Your task to perform on an android device: Toggle the flashlight Image 0: 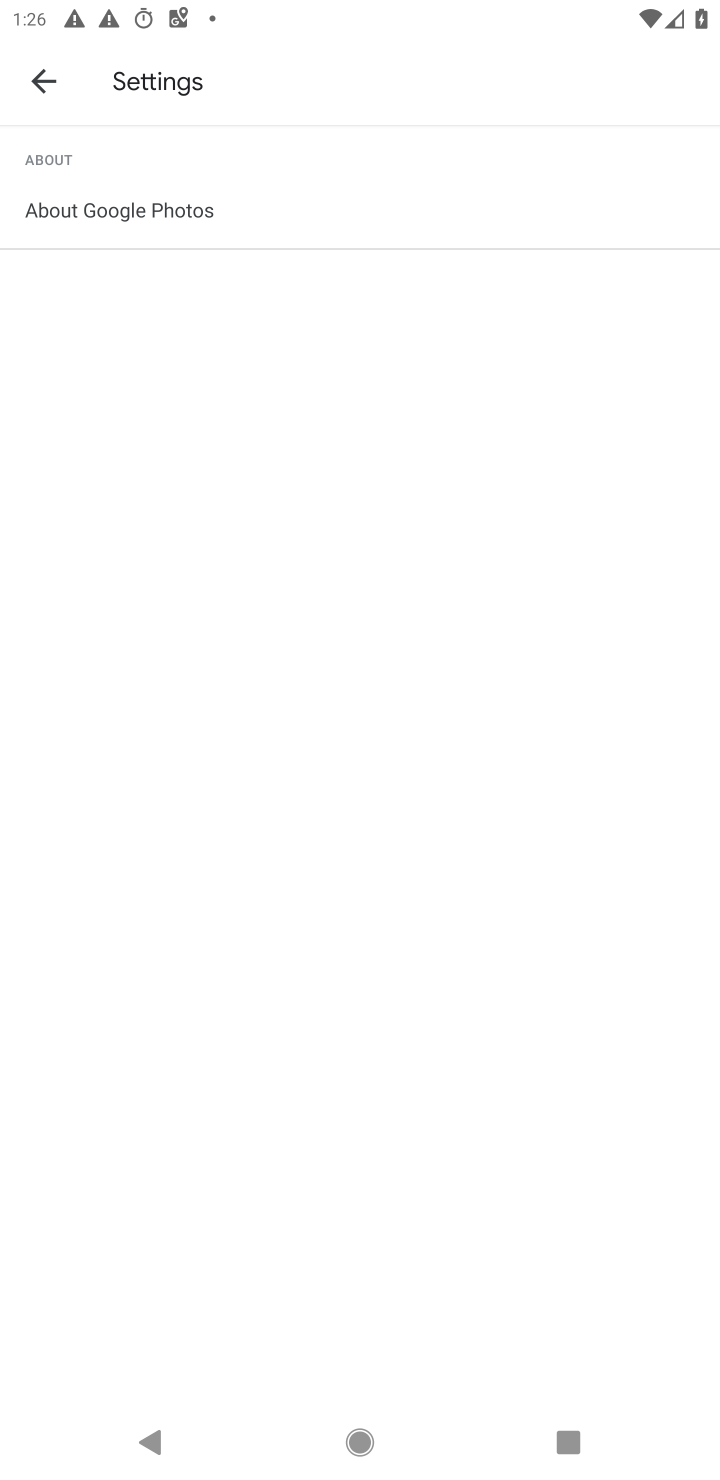
Step 0: press home button
Your task to perform on an android device: Toggle the flashlight Image 1: 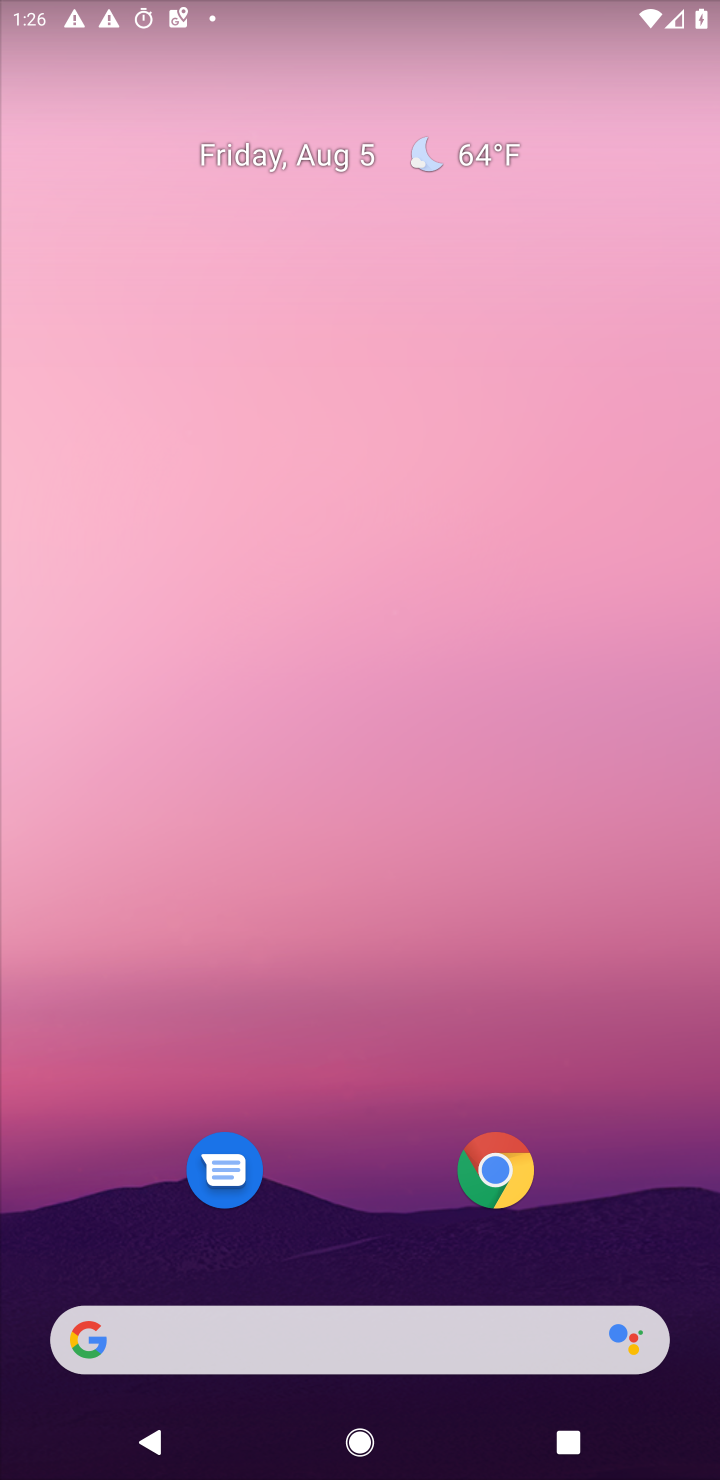
Step 1: drag from (383, 1155) to (250, 134)
Your task to perform on an android device: Toggle the flashlight Image 2: 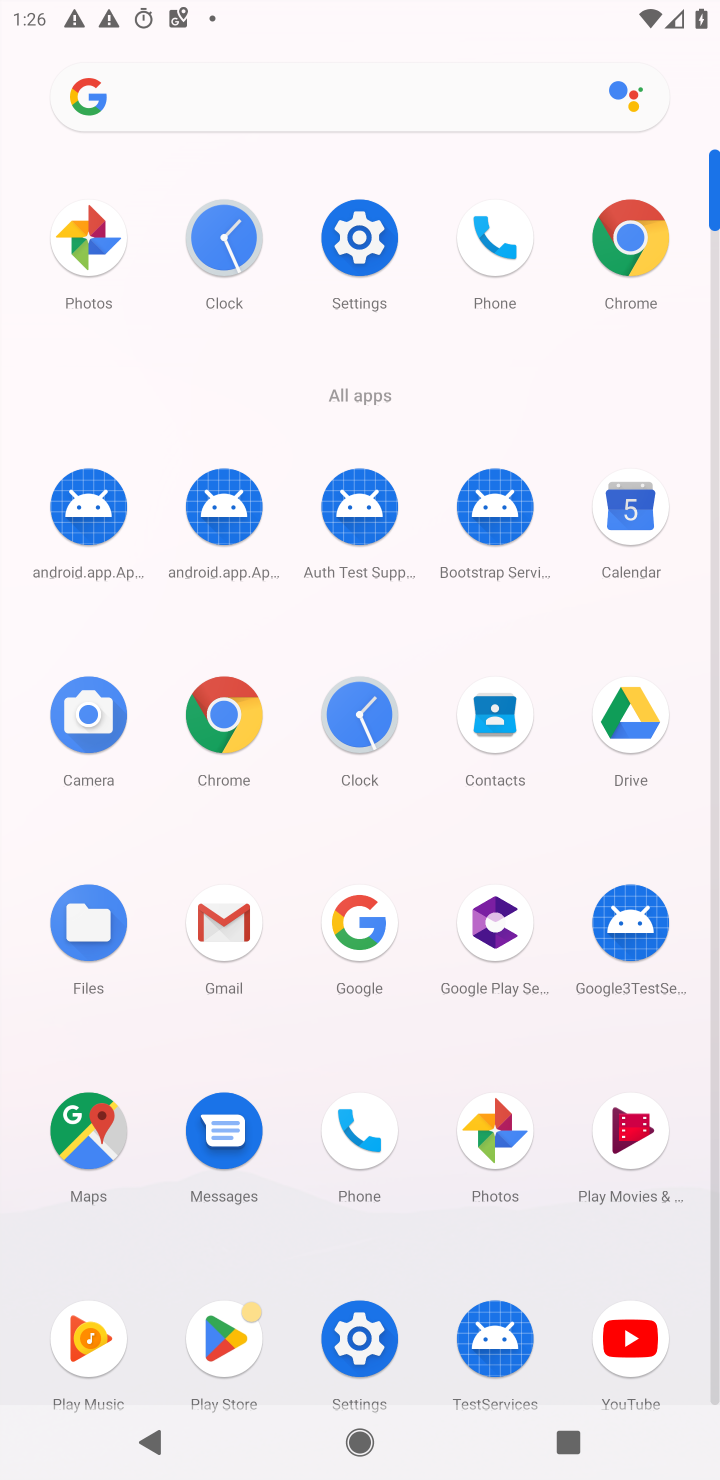
Step 2: click (363, 260)
Your task to perform on an android device: Toggle the flashlight Image 3: 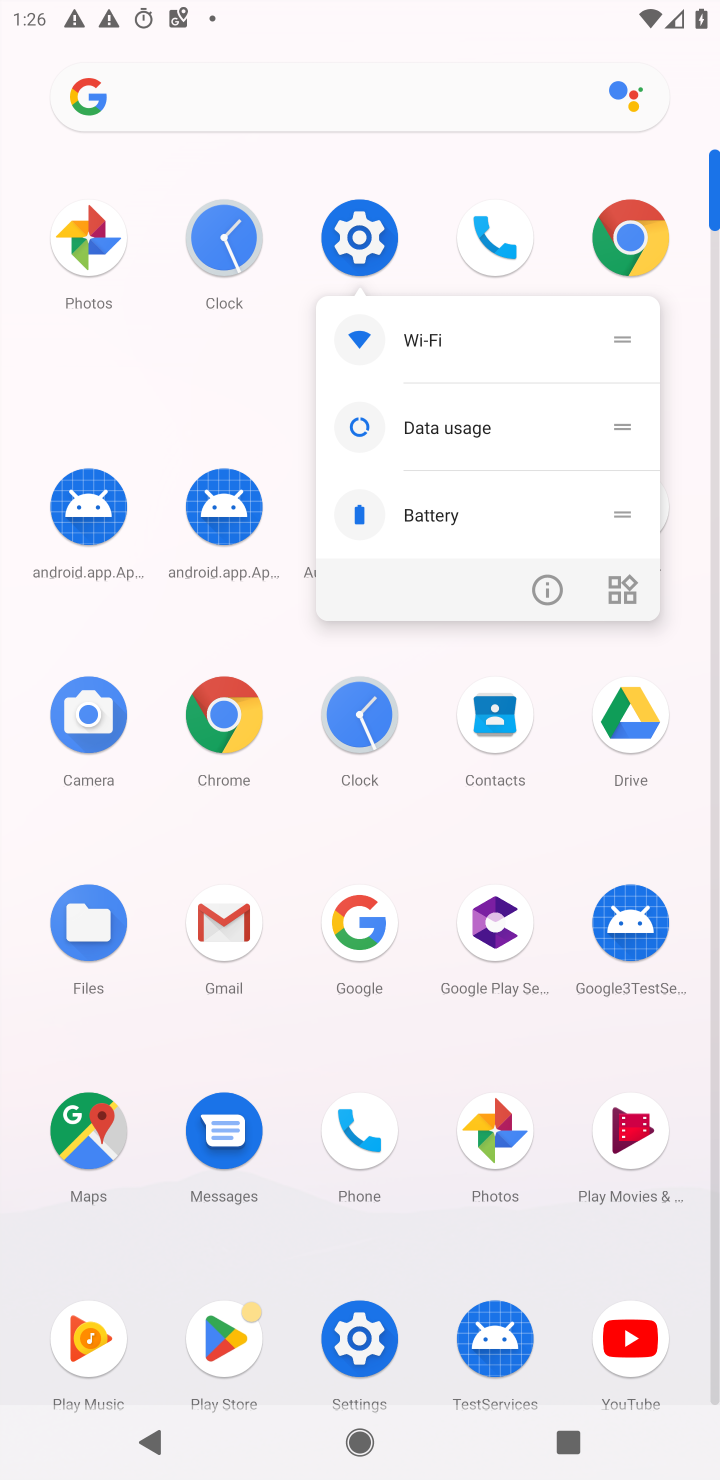
Step 3: click (361, 235)
Your task to perform on an android device: Toggle the flashlight Image 4: 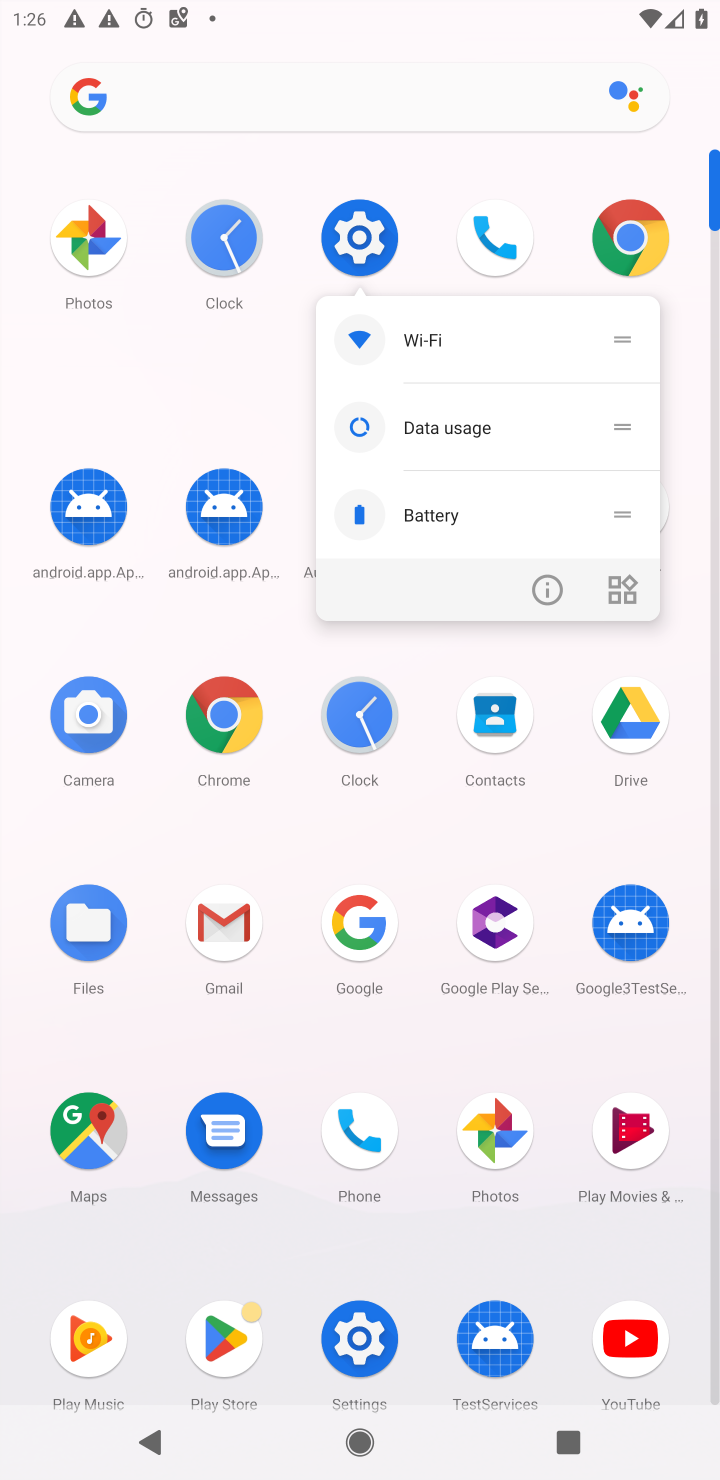
Step 4: click (361, 235)
Your task to perform on an android device: Toggle the flashlight Image 5: 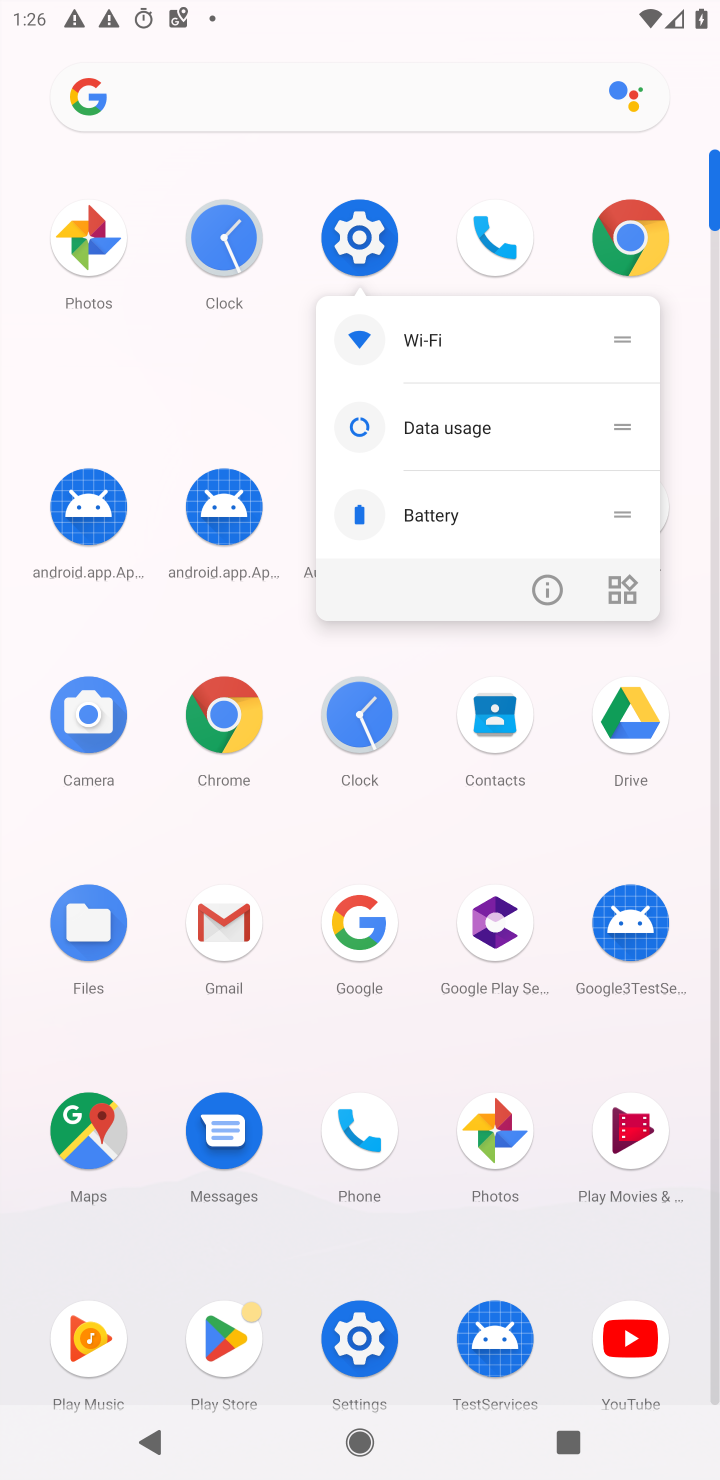
Step 5: click (361, 235)
Your task to perform on an android device: Toggle the flashlight Image 6: 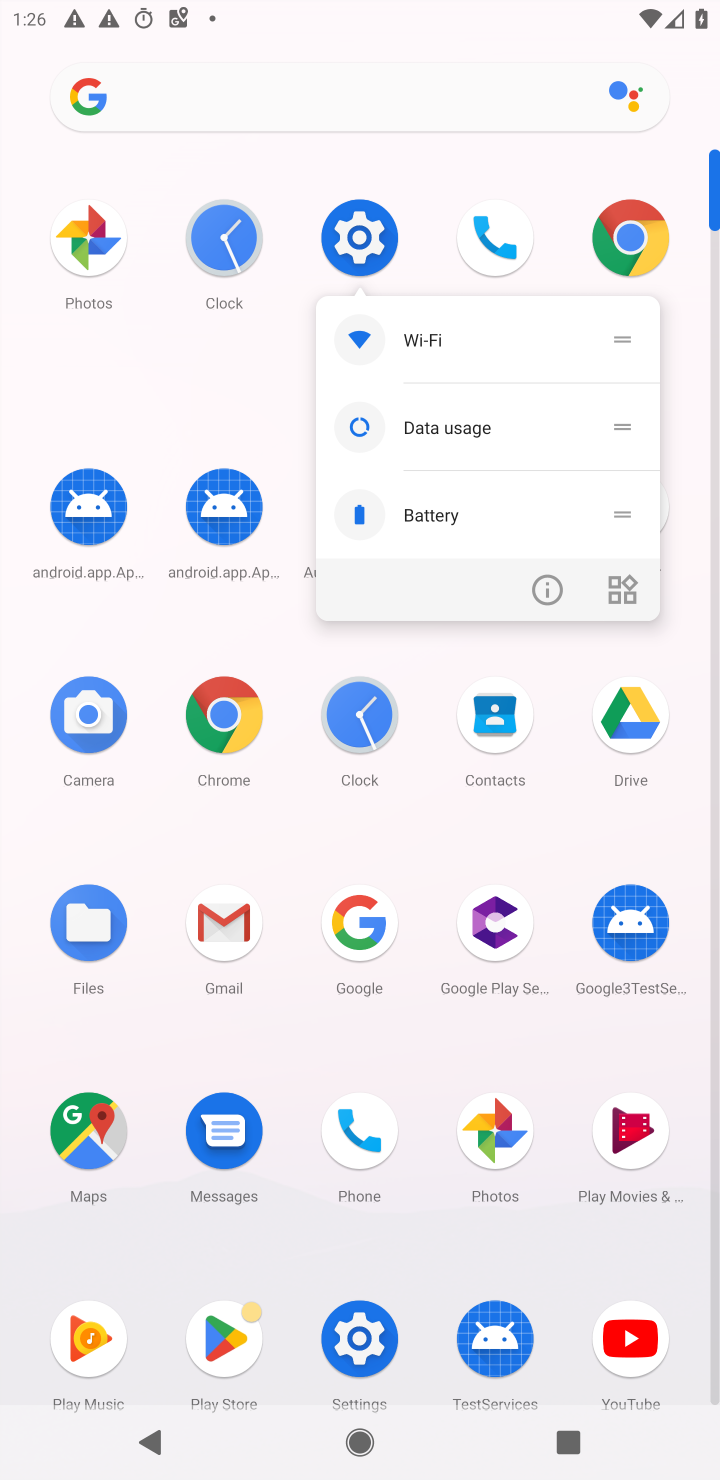
Step 6: click (373, 223)
Your task to perform on an android device: Toggle the flashlight Image 7: 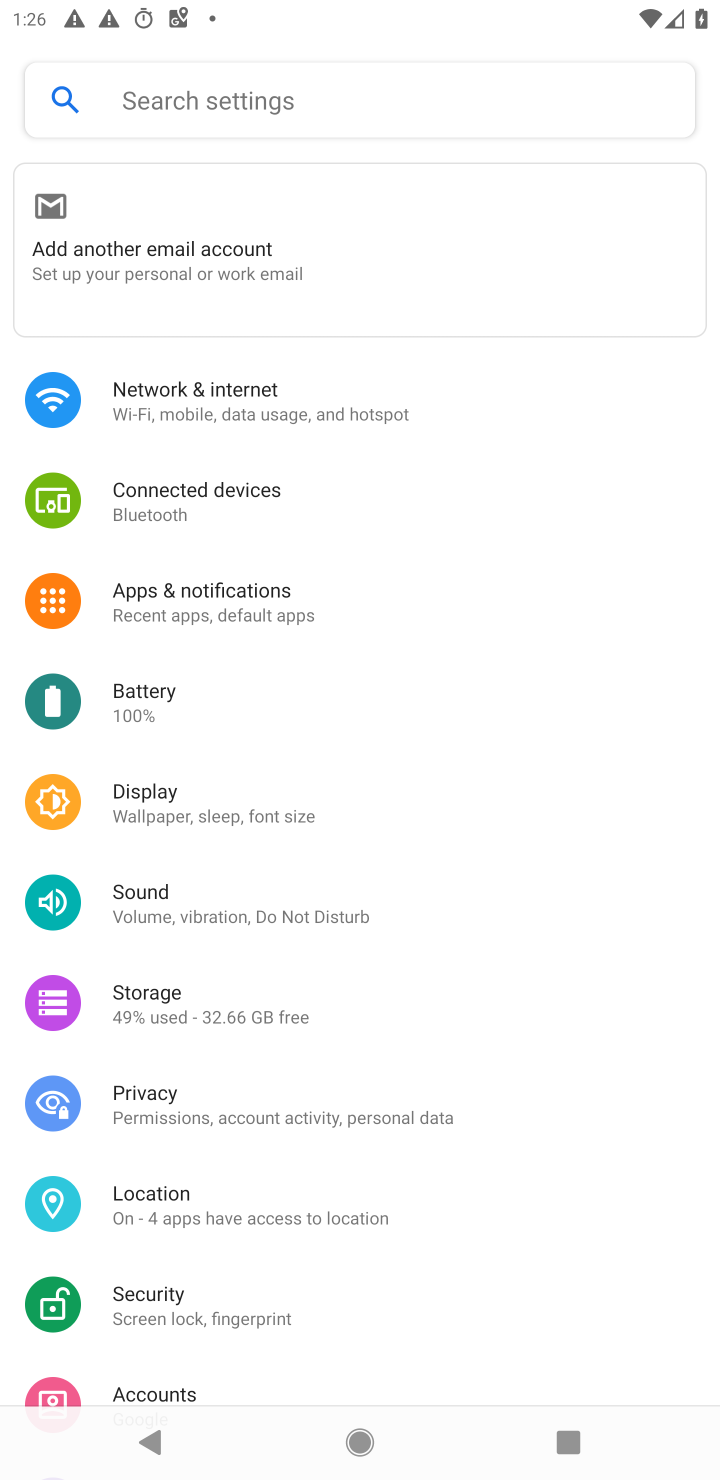
Step 7: task complete